Your task to perform on an android device: uninstall "Nova Launcher" Image 0: 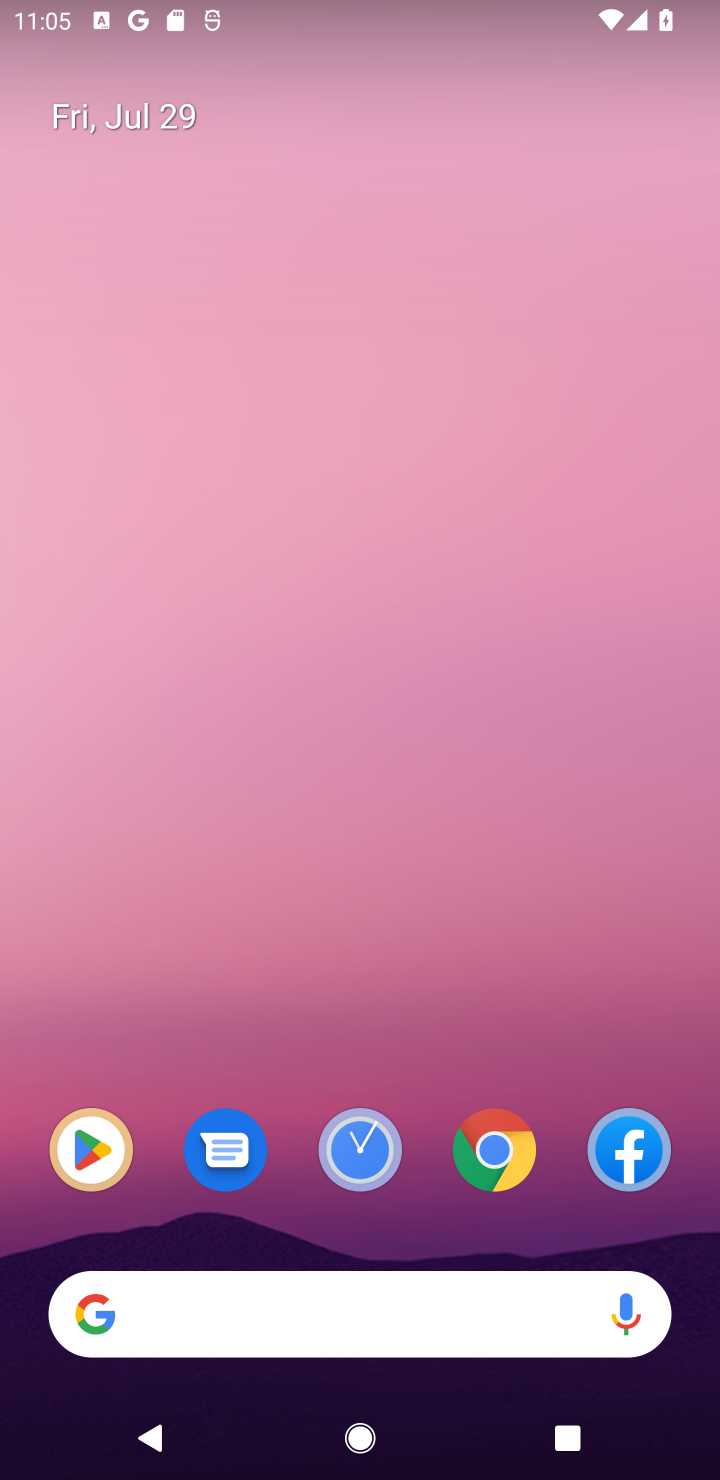
Step 0: click (108, 1165)
Your task to perform on an android device: uninstall "Nova Launcher" Image 1: 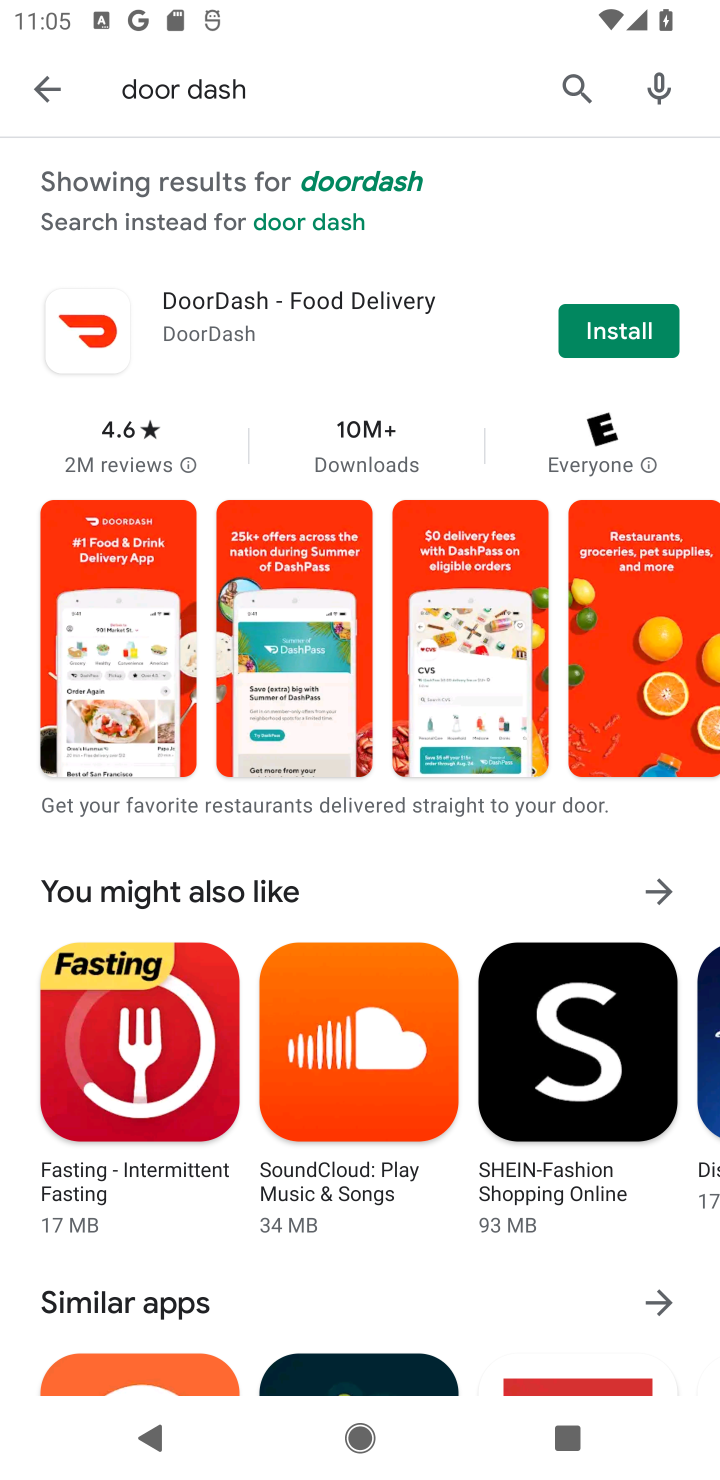
Step 1: click (567, 84)
Your task to perform on an android device: uninstall "Nova Launcher" Image 2: 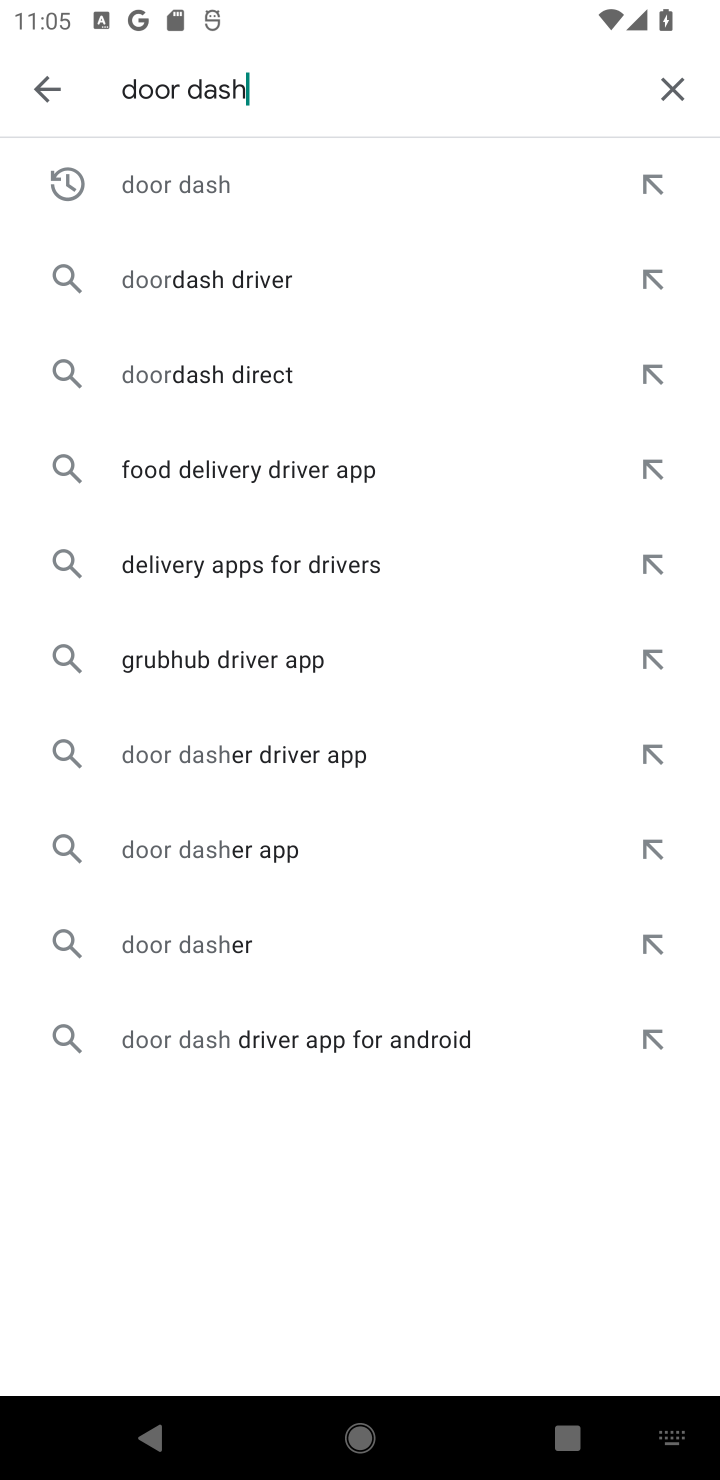
Step 2: click (659, 77)
Your task to perform on an android device: uninstall "Nova Launcher" Image 3: 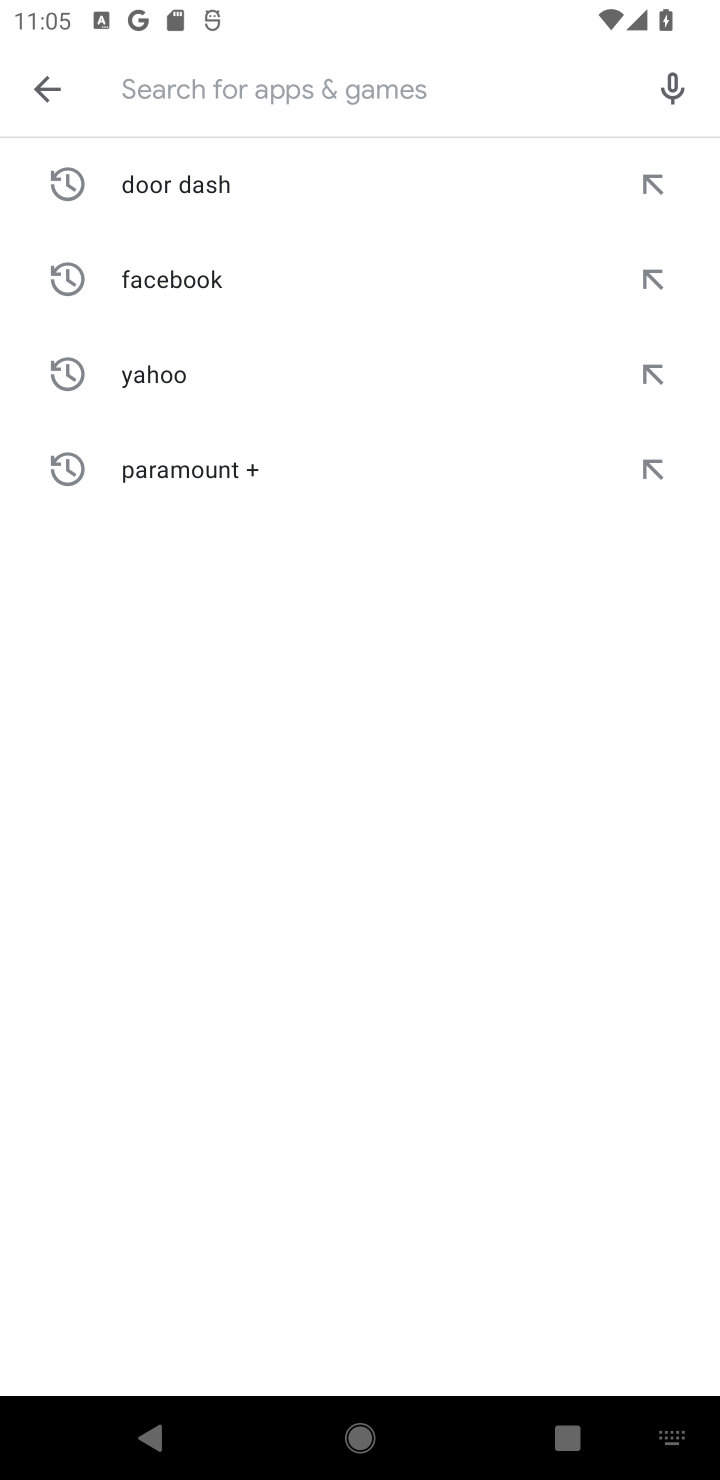
Step 3: type "nova launcher"
Your task to perform on an android device: uninstall "Nova Launcher" Image 4: 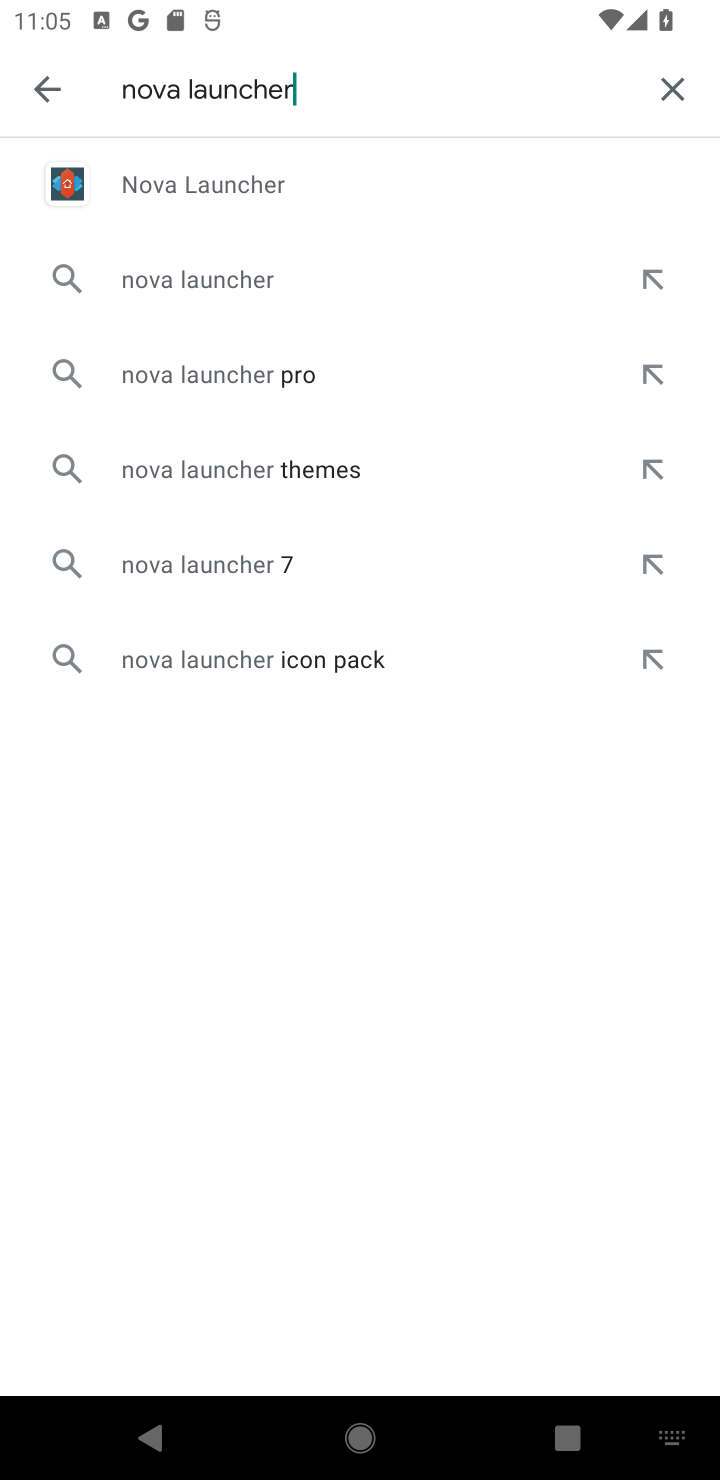
Step 4: click (236, 186)
Your task to perform on an android device: uninstall "Nova Launcher" Image 5: 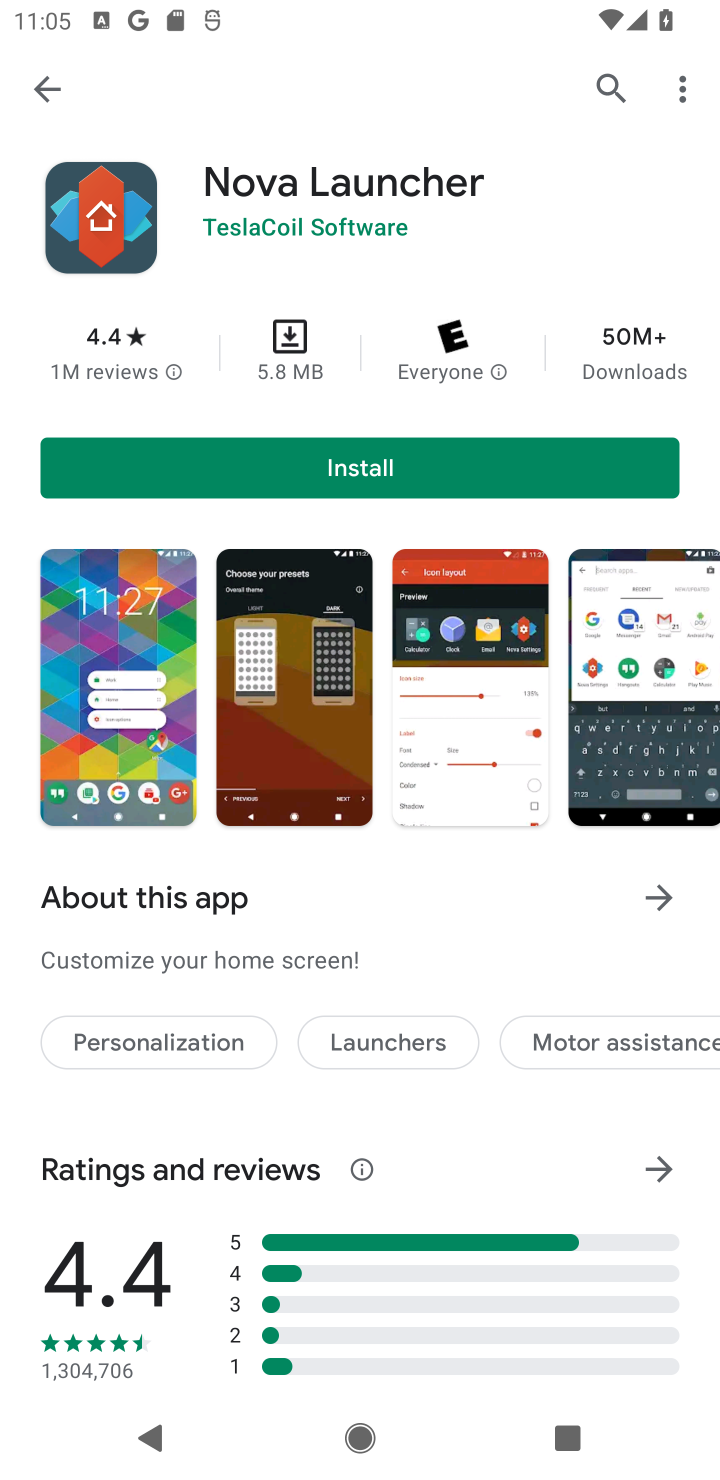
Step 5: task complete